Your task to perform on an android device: open app "NewsBreak: Local News & Alerts" (install if not already installed) Image 0: 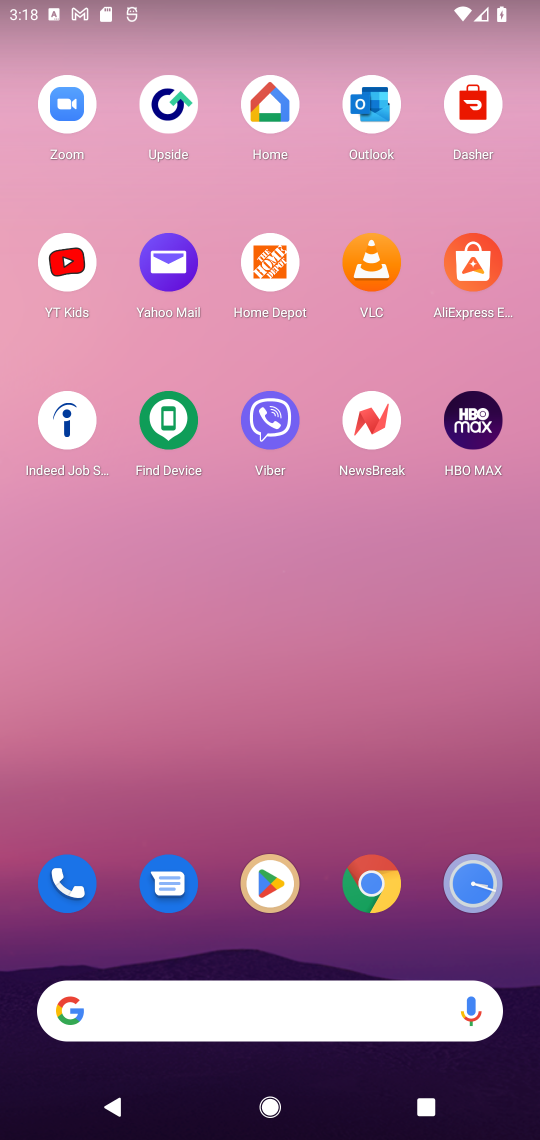
Step 0: drag from (259, 992) to (222, 176)
Your task to perform on an android device: open app "NewsBreak: Local News & Alerts" (install if not already installed) Image 1: 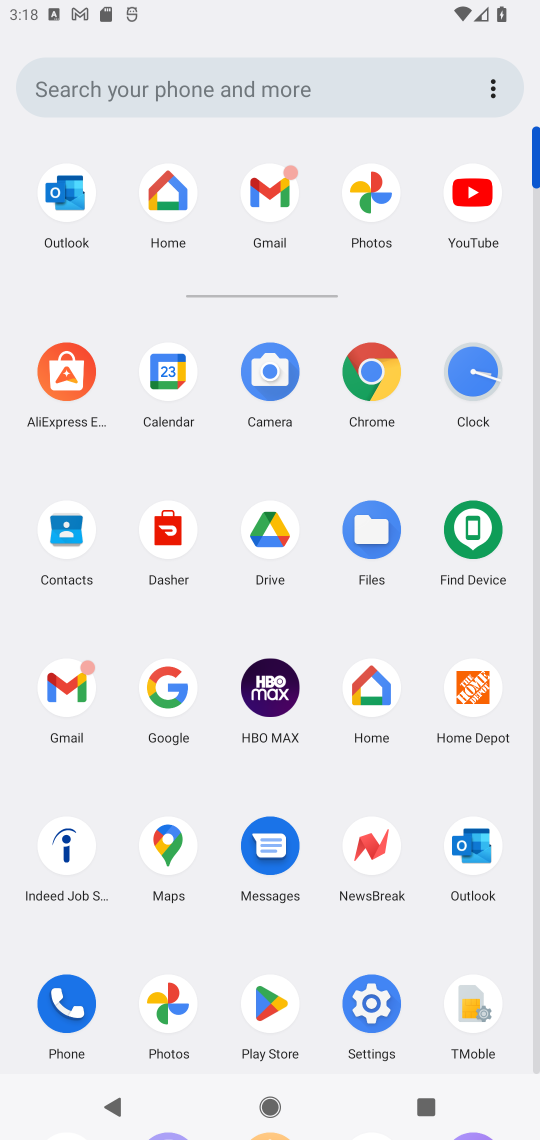
Step 1: click (264, 1001)
Your task to perform on an android device: open app "NewsBreak: Local News & Alerts" (install if not already installed) Image 2: 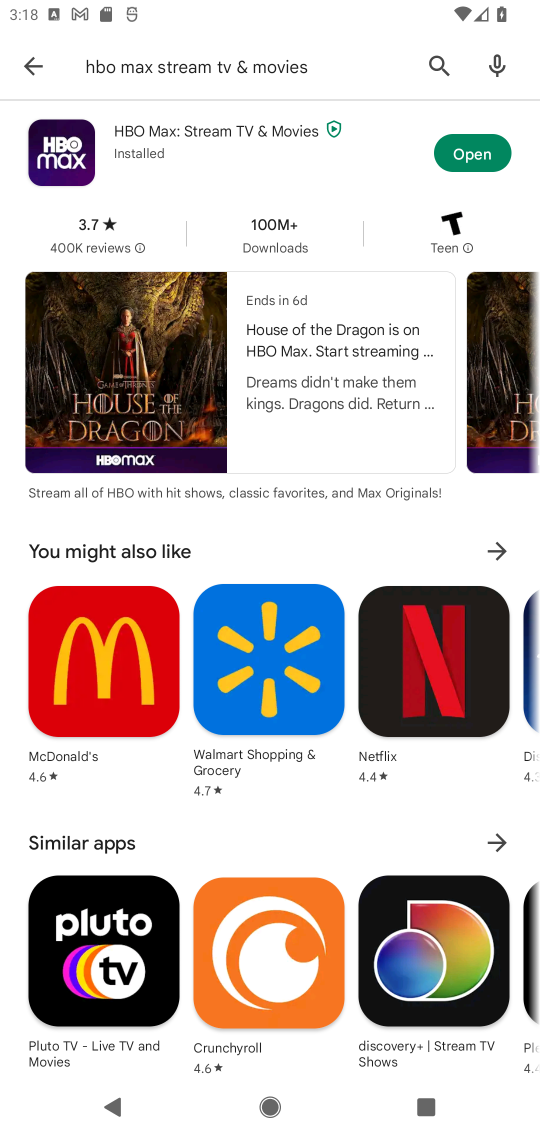
Step 2: click (434, 64)
Your task to perform on an android device: open app "NewsBreak: Local News & Alerts" (install if not already installed) Image 3: 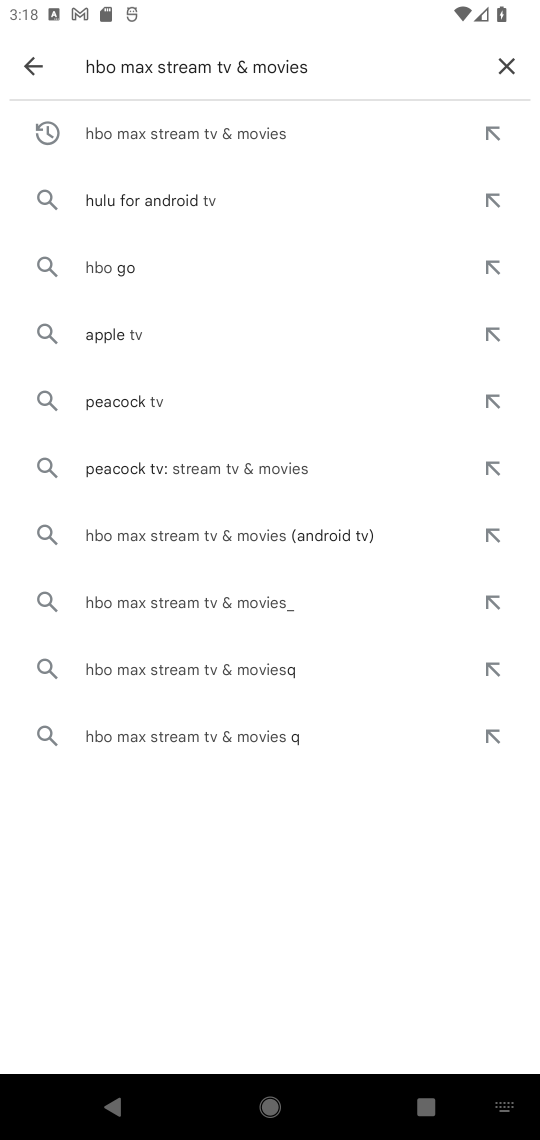
Step 3: click (503, 60)
Your task to perform on an android device: open app "NewsBreak: Local News & Alerts" (install if not already installed) Image 4: 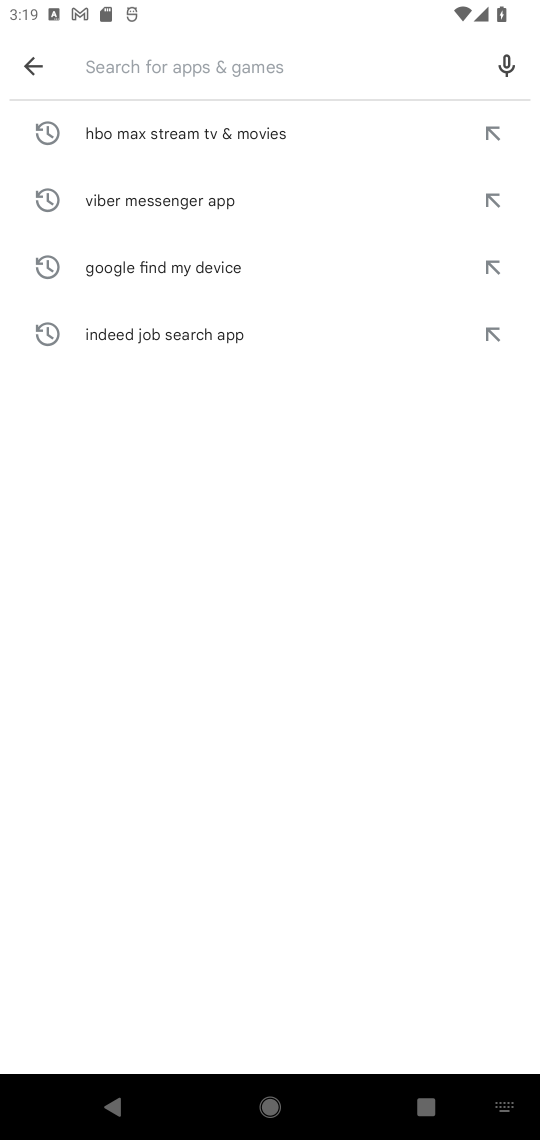
Step 4: type "NewsBreak: Local News & Alerts"
Your task to perform on an android device: open app "NewsBreak: Local News & Alerts" (install if not already installed) Image 5: 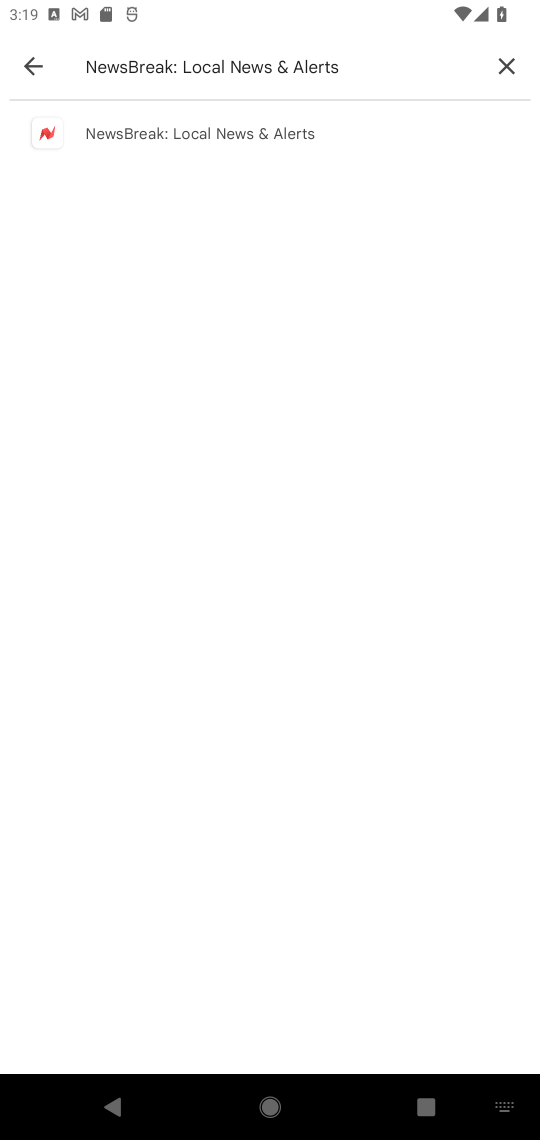
Step 5: click (137, 151)
Your task to perform on an android device: open app "NewsBreak: Local News & Alerts" (install if not already installed) Image 6: 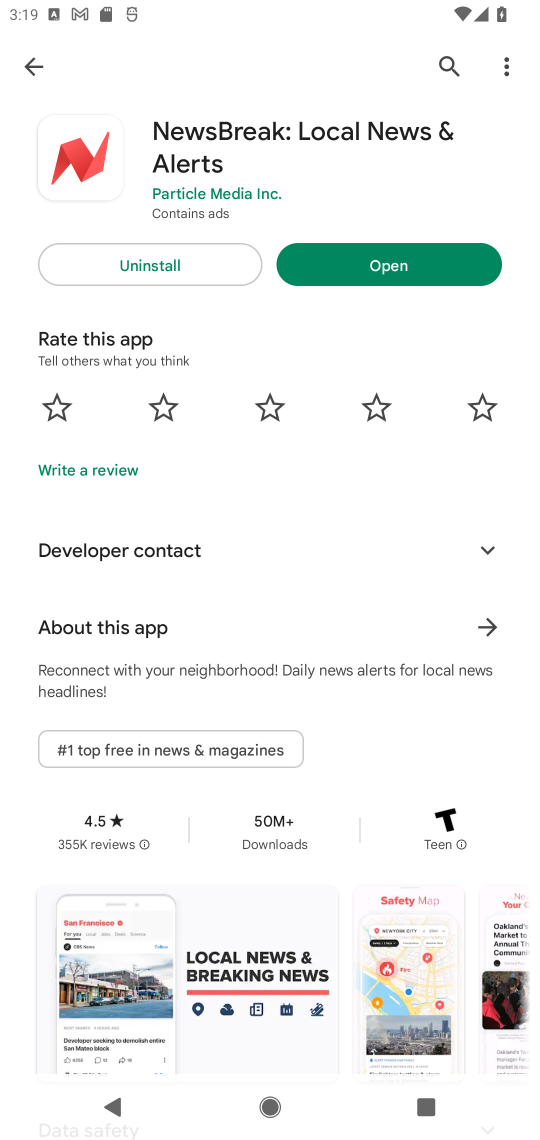
Step 6: click (408, 270)
Your task to perform on an android device: open app "NewsBreak: Local News & Alerts" (install if not already installed) Image 7: 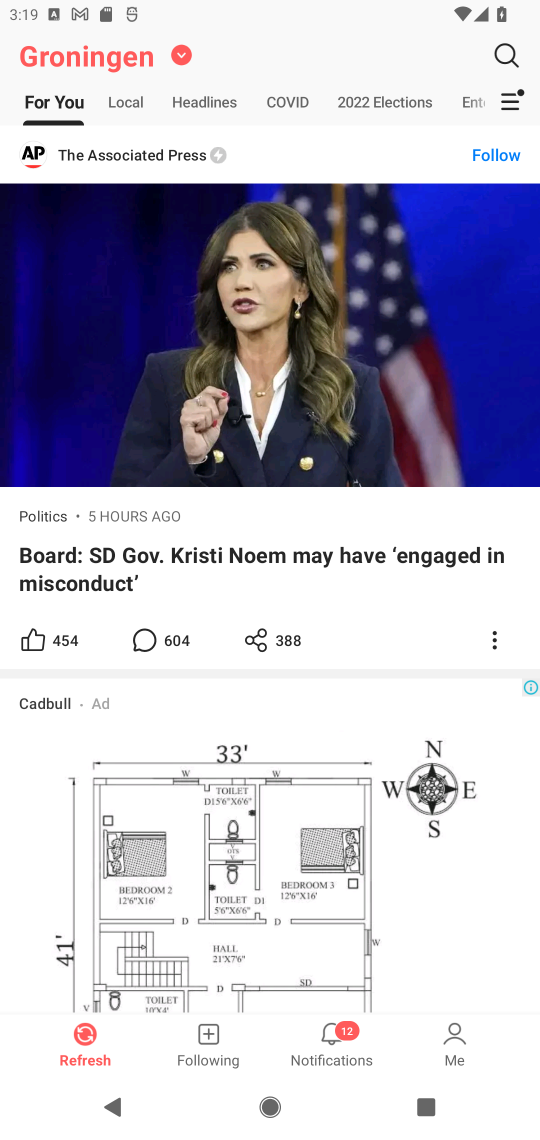
Step 7: task complete